Your task to perform on an android device: Show me productivity apps on the Play Store Image 0: 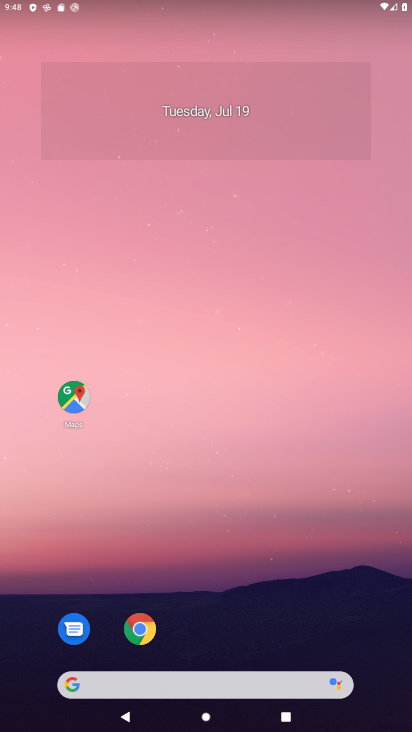
Step 0: press home button
Your task to perform on an android device: Show me productivity apps on the Play Store Image 1: 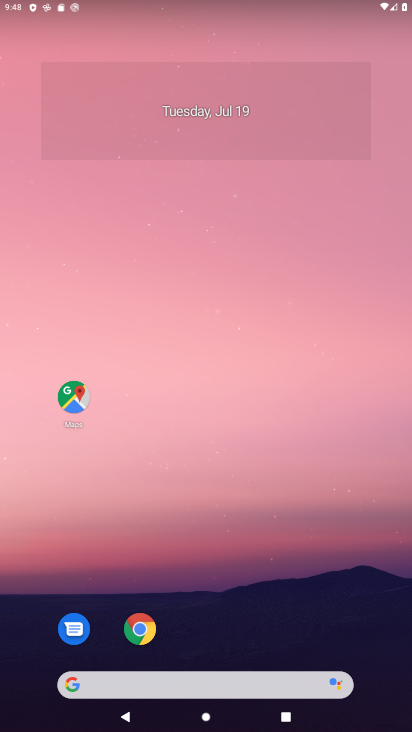
Step 1: drag from (283, 502) to (285, 253)
Your task to perform on an android device: Show me productivity apps on the Play Store Image 2: 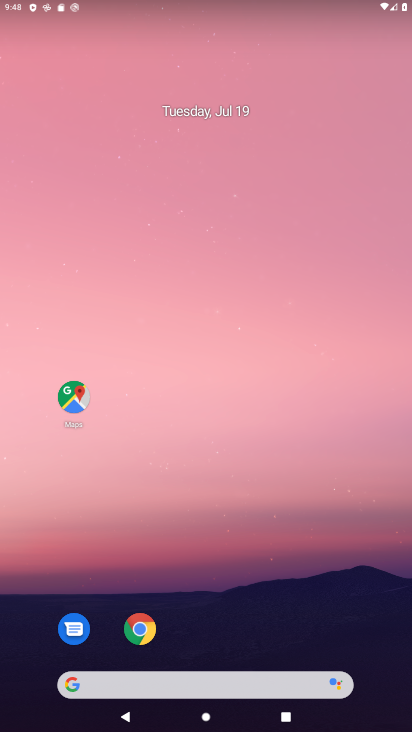
Step 2: drag from (273, 605) to (263, 280)
Your task to perform on an android device: Show me productivity apps on the Play Store Image 3: 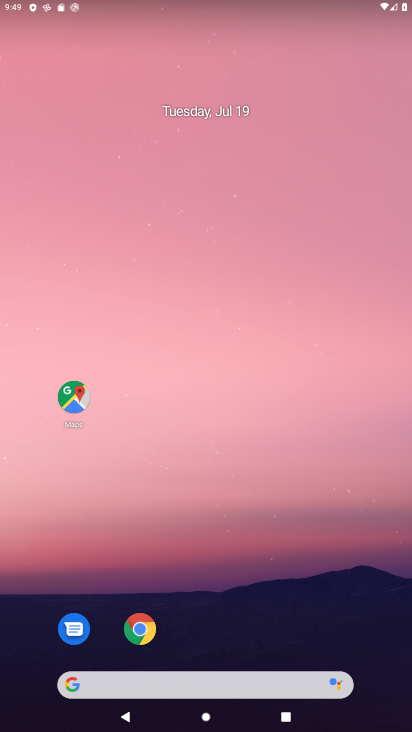
Step 3: drag from (204, 606) to (208, 161)
Your task to perform on an android device: Show me productivity apps on the Play Store Image 4: 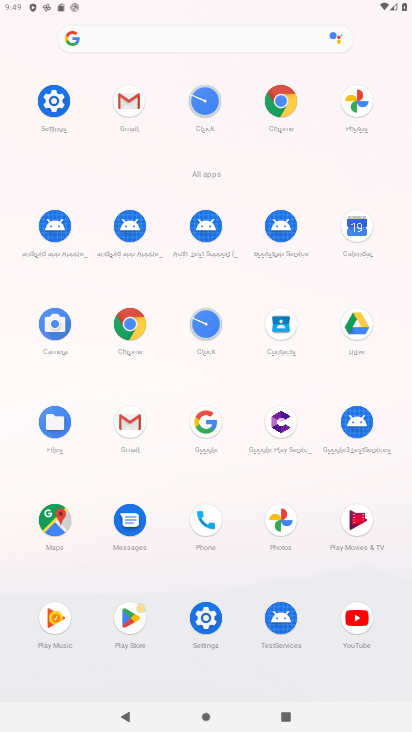
Step 4: click (135, 624)
Your task to perform on an android device: Show me productivity apps on the Play Store Image 5: 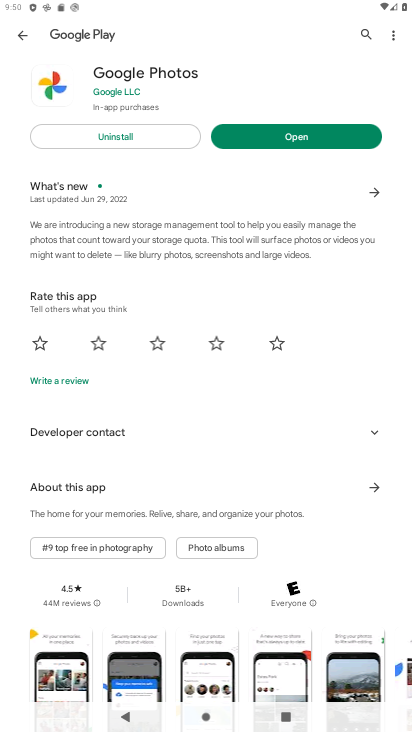
Step 5: click (13, 40)
Your task to perform on an android device: Show me productivity apps on the Play Store Image 6: 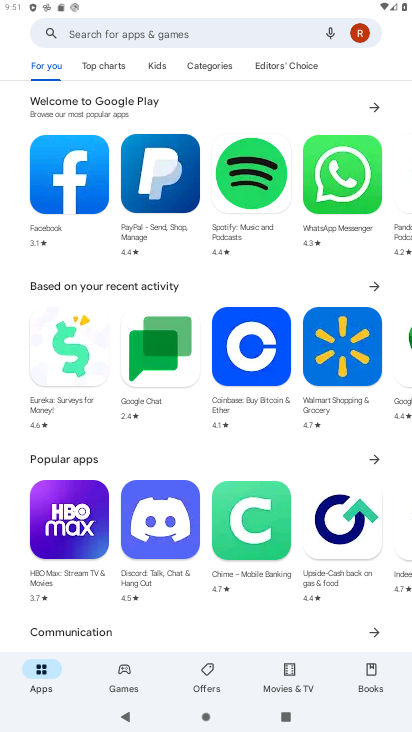
Step 6: click (219, 64)
Your task to perform on an android device: Show me productivity apps on the Play Store Image 7: 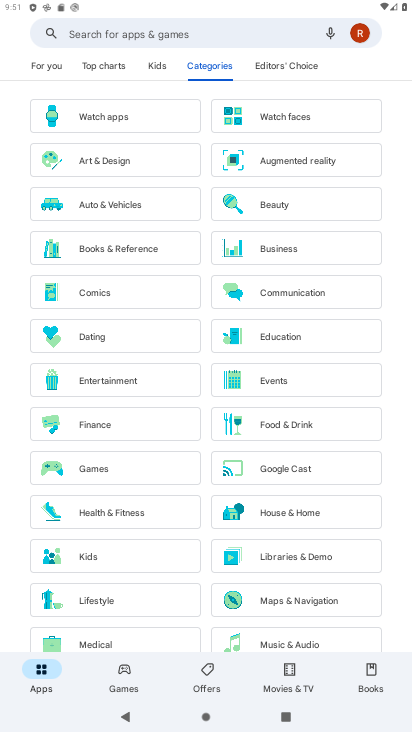
Step 7: drag from (315, 443) to (315, 386)
Your task to perform on an android device: Show me productivity apps on the Play Store Image 8: 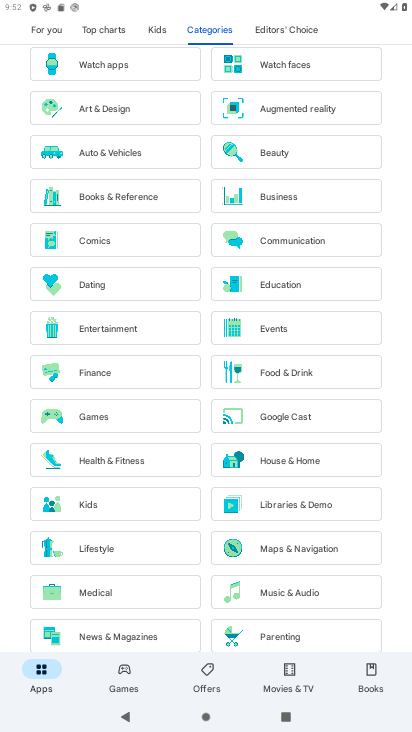
Step 8: drag from (391, 619) to (375, 395)
Your task to perform on an android device: Show me productivity apps on the Play Store Image 9: 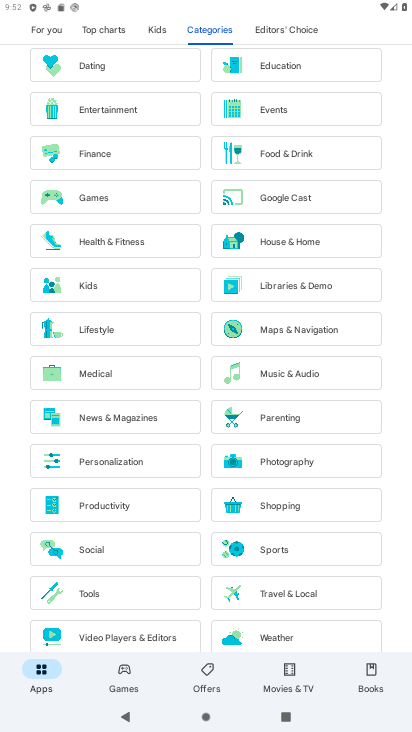
Step 9: click (134, 506)
Your task to perform on an android device: Show me productivity apps on the Play Store Image 10: 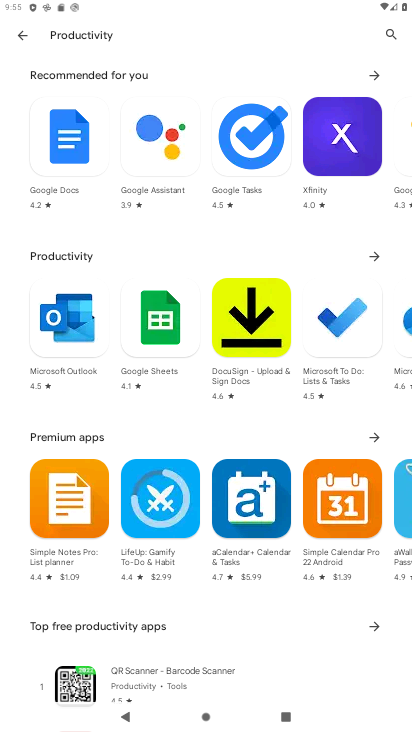
Step 10: task complete